Your task to perform on an android device: make emails show in primary in the gmail app Image 0: 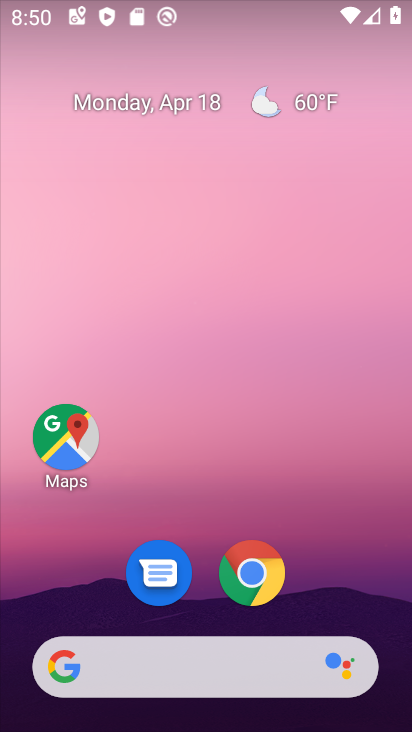
Step 0: drag from (310, 508) to (258, 55)
Your task to perform on an android device: make emails show in primary in the gmail app Image 1: 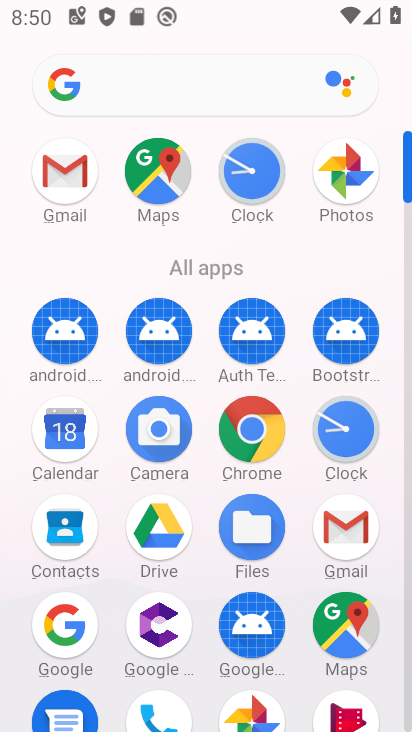
Step 1: click (354, 534)
Your task to perform on an android device: make emails show in primary in the gmail app Image 2: 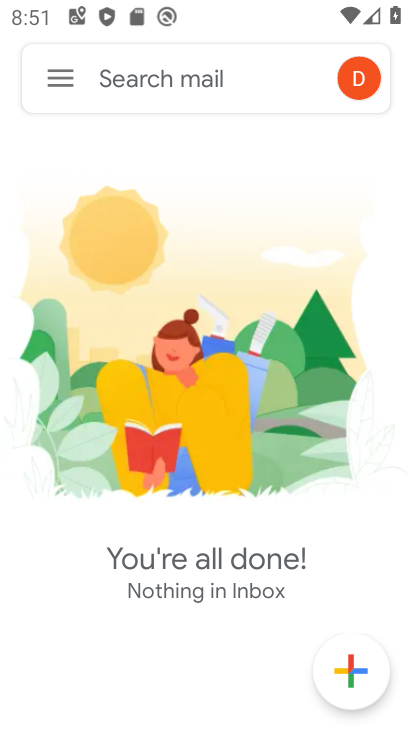
Step 2: click (67, 80)
Your task to perform on an android device: make emails show in primary in the gmail app Image 3: 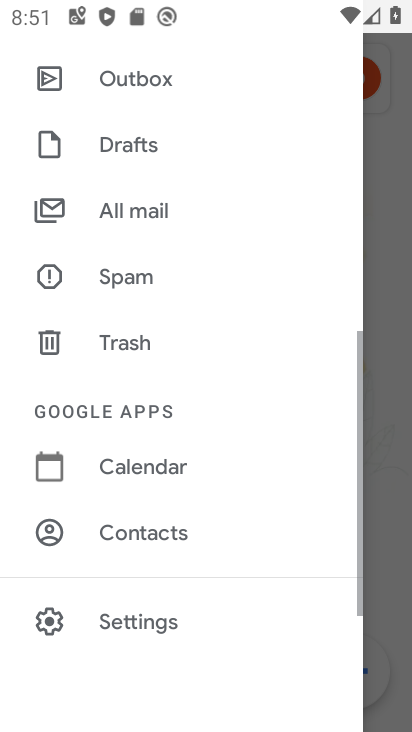
Step 3: drag from (140, 108) to (180, 658)
Your task to perform on an android device: make emails show in primary in the gmail app Image 4: 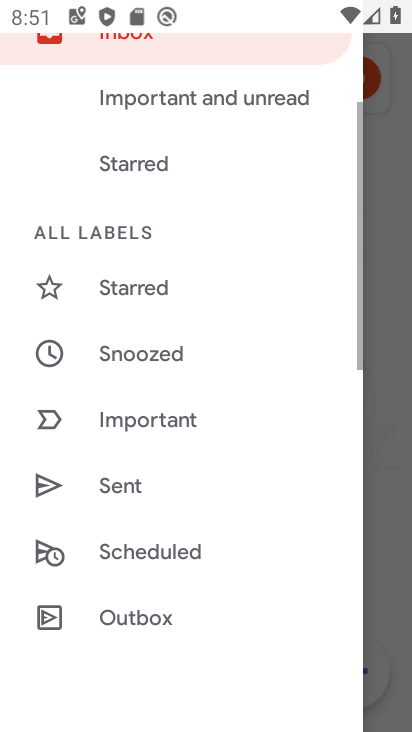
Step 4: drag from (151, 139) to (137, 486)
Your task to perform on an android device: make emails show in primary in the gmail app Image 5: 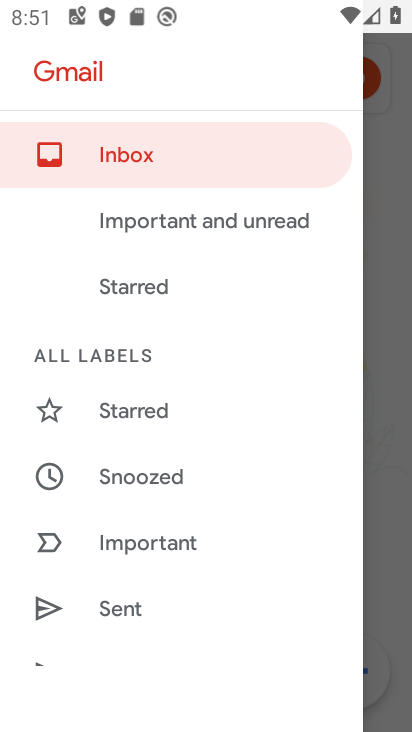
Step 5: drag from (162, 496) to (167, 336)
Your task to perform on an android device: make emails show in primary in the gmail app Image 6: 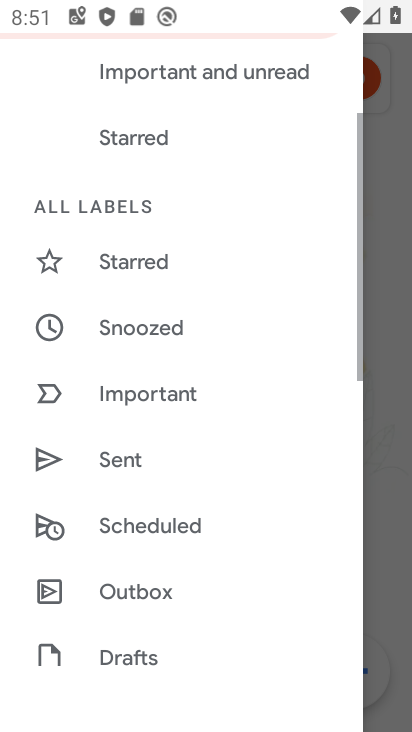
Step 6: click (163, 102)
Your task to perform on an android device: make emails show in primary in the gmail app Image 7: 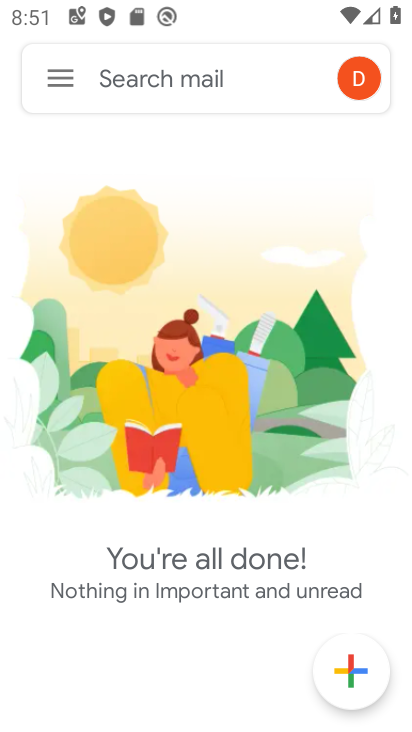
Step 7: click (76, 85)
Your task to perform on an android device: make emails show in primary in the gmail app Image 8: 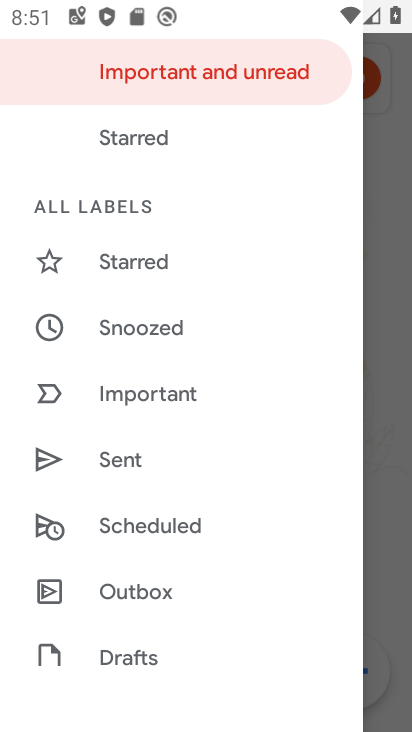
Step 8: drag from (137, 595) to (211, 175)
Your task to perform on an android device: make emails show in primary in the gmail app Image 9: 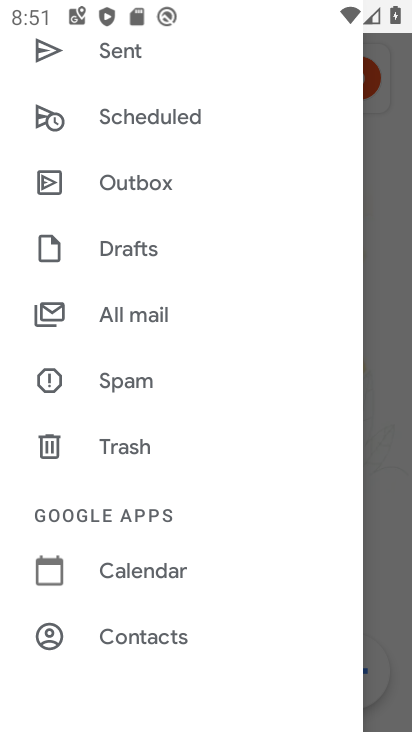
Step 9: drag from (108, 645) to (173, 352)
Your task to perform on an android device: make emails show in primary in the gmail app Image 10: 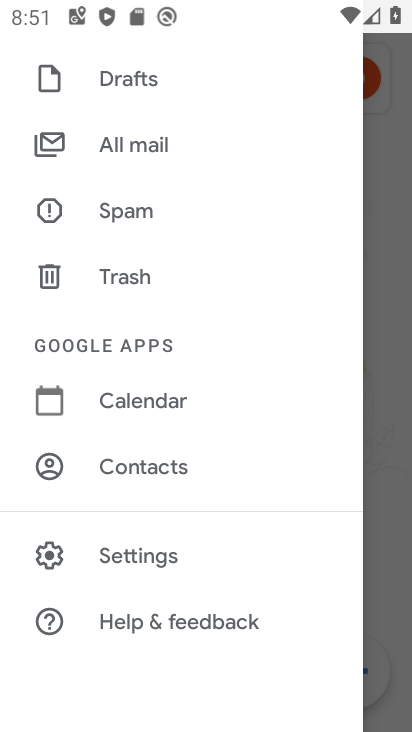
Step 10: click (110, 551)
Your task to perform on an android device: make emails show in primary in the gmail app Image 11: 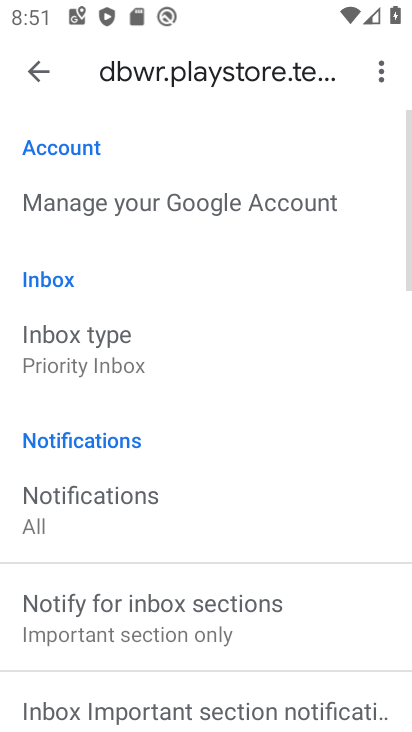
Step 11: click (101, 355)
Your task to perform on an android device: make emails show in primary in the gmail app Image 12: 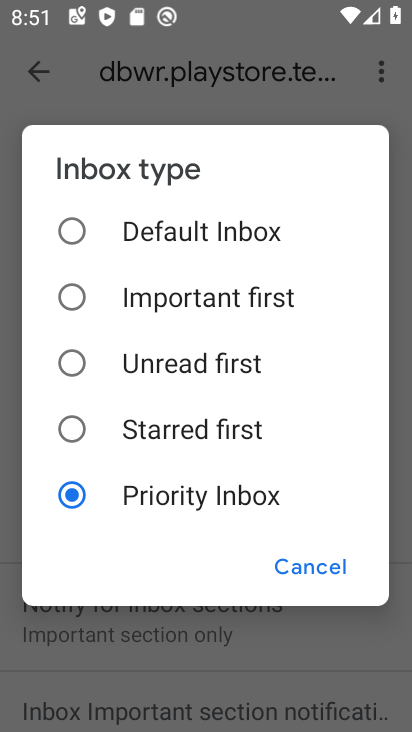
Step 12: click (68, 236)
Your task to perform on an android device: make emails show in primary in the gmail app Image 13: 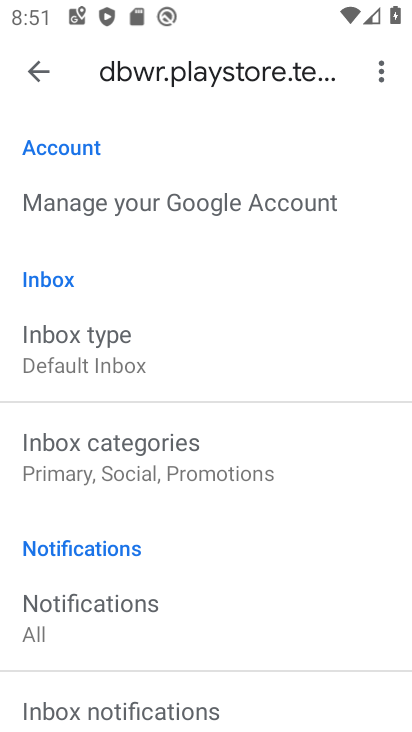
Step 13: press back button
Your task to perform on an android device: make emails show in primary in the gmail app Image 14: 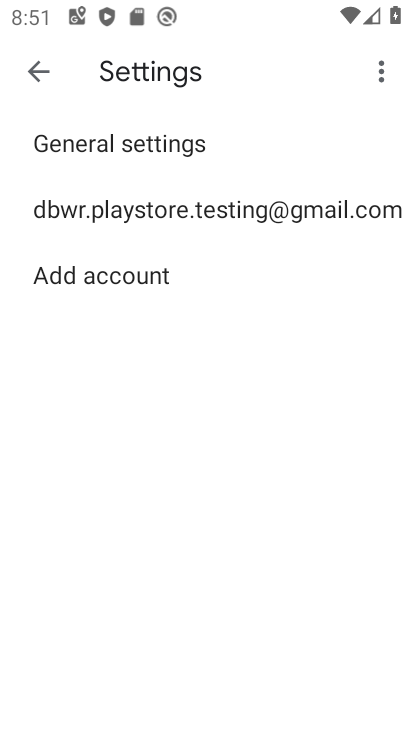
Step 14: press back button
Your task to perform on an android device: make emails show in primary in the gmail app Image 15: 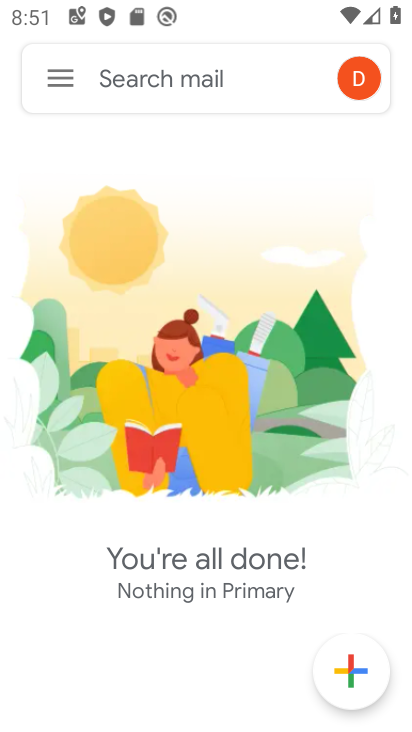
Step 15: click (55, 81)
Your task to perform on an android device: make emails show in primary in the gmail app Image 16: 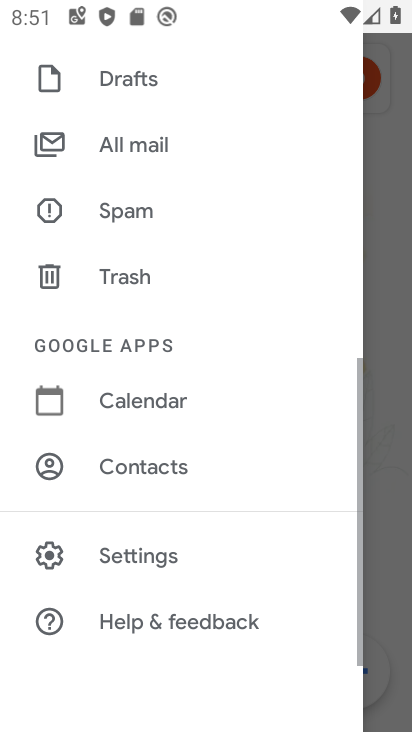
Step 16: task complete